Your task to perform on an android device: change the clock display to show seconds Image 0: 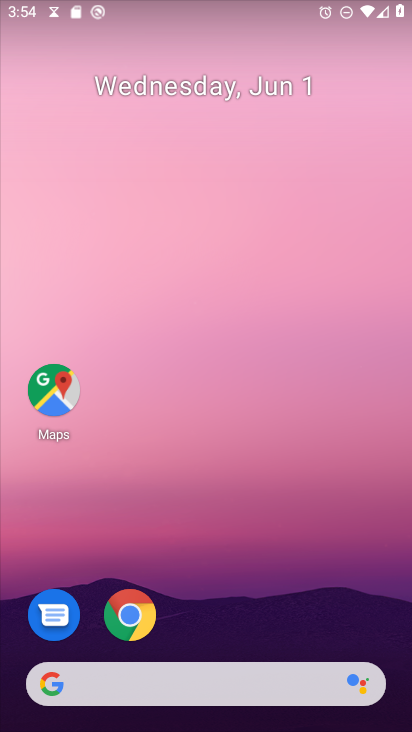
Step 0: press home button
Your task to perform on an android device: change the clock display to show seconds Image 1: 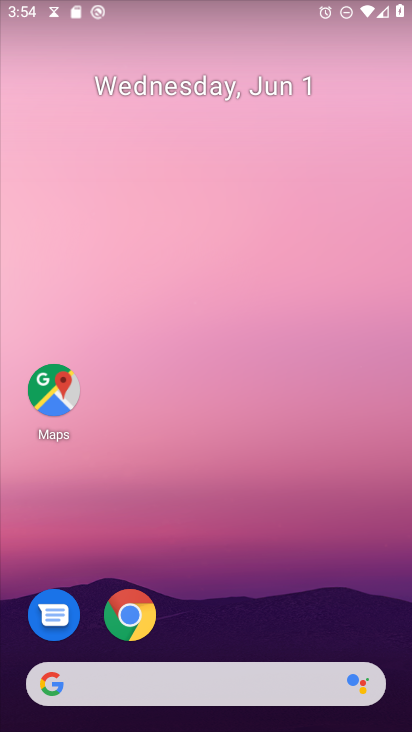
Step 1: drag from (218, 642) to (271, 112)
Your task to perform on an android device: change the clock display to show seconds Image 2: 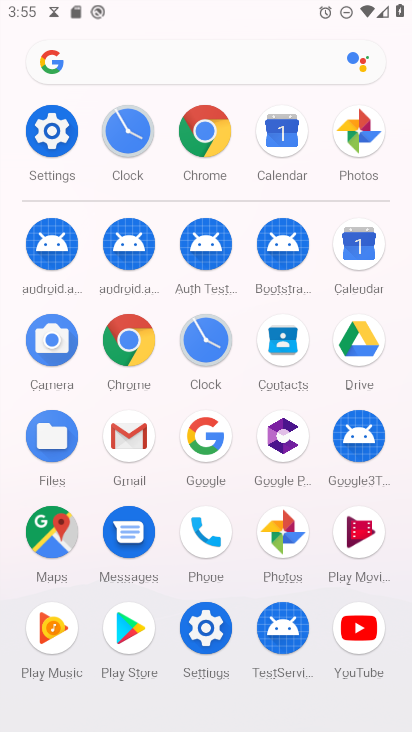
Step 2: click (213, 332)
Your task to perform on an android device: change the clock display to show seconds Image 3: 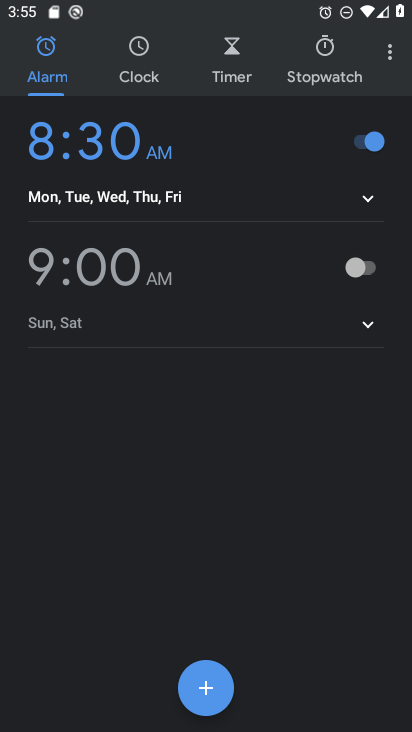
Step 3: click (393, 43)
Your task to perform on an android device: change the clock display to show seconds Image 4: 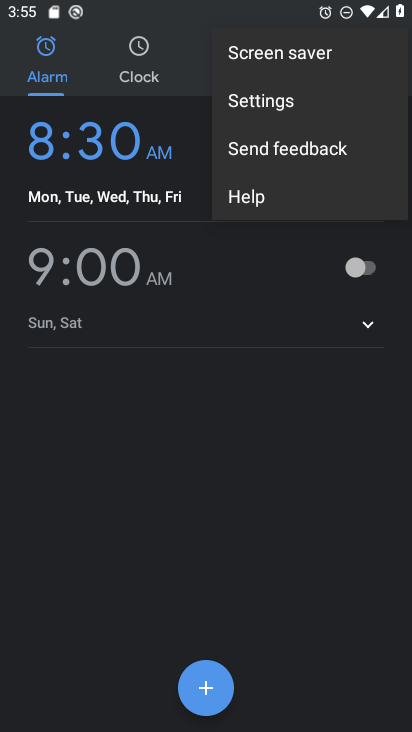
Step 4: click (312, 103)
Your task to perform on an android device: change the clock display to show seconds Image 5: 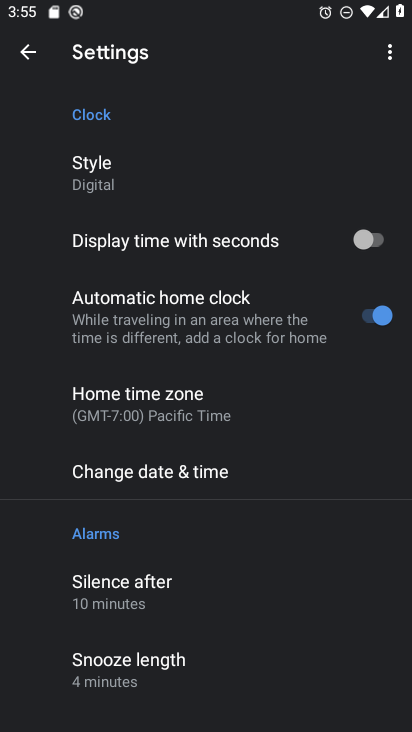
Step 5: click (357, 235)
Your task to perform on an android device: change the clock display to show seconds Image 6: 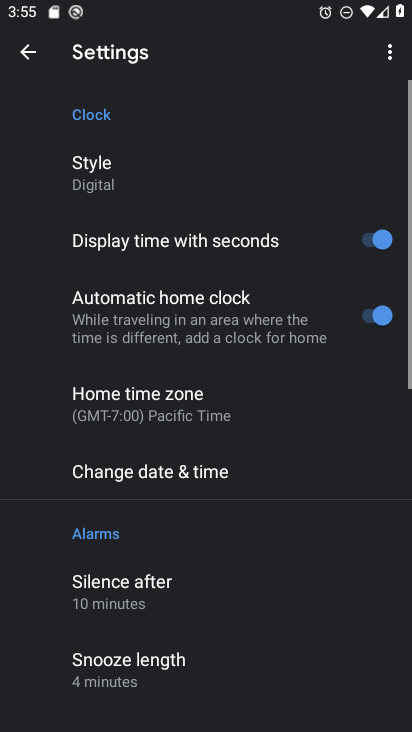
Step 6: task complete